Your task to perform on an android device: make emails show in primary in the gmail app Image 0: 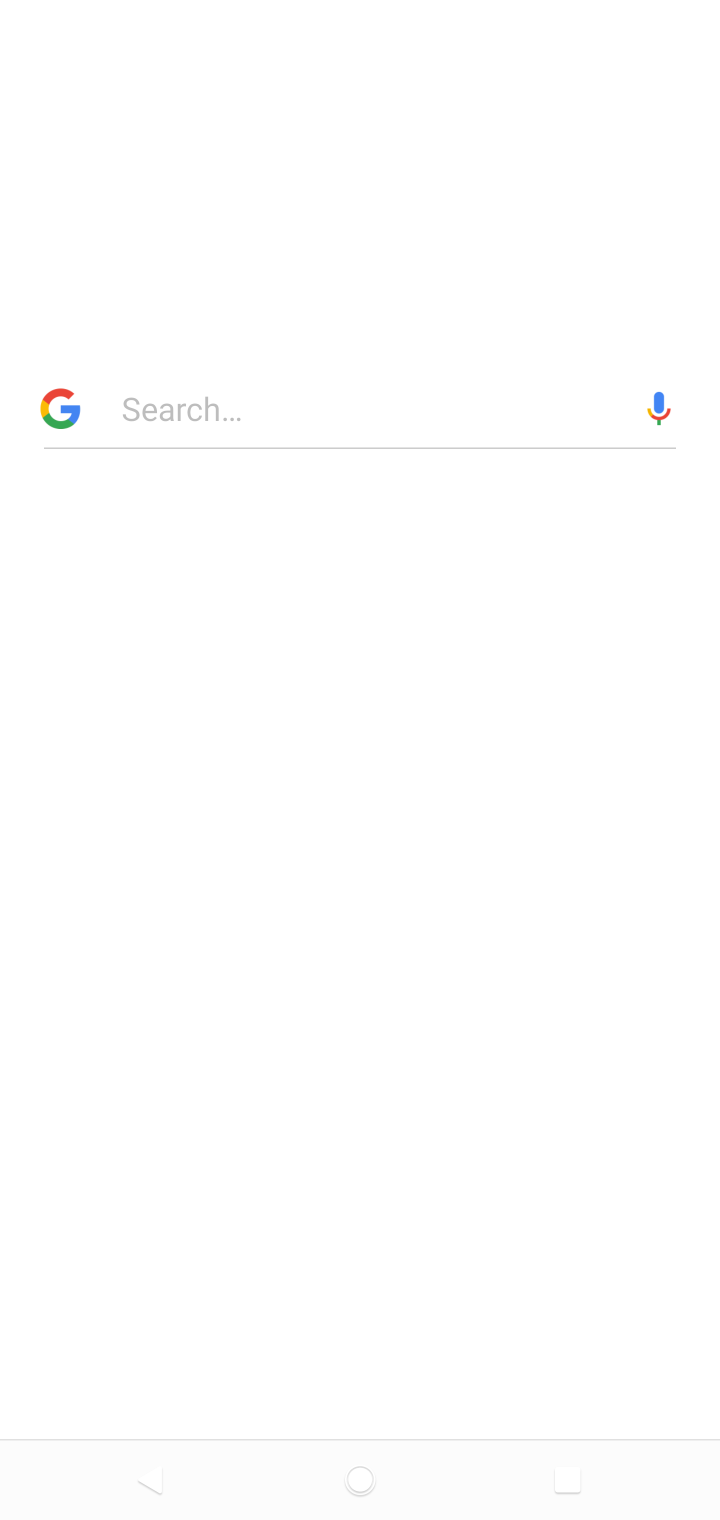
Step 0: press home button
Your task to perform on an android device: make emails show in primary in the gmail app Image 1: 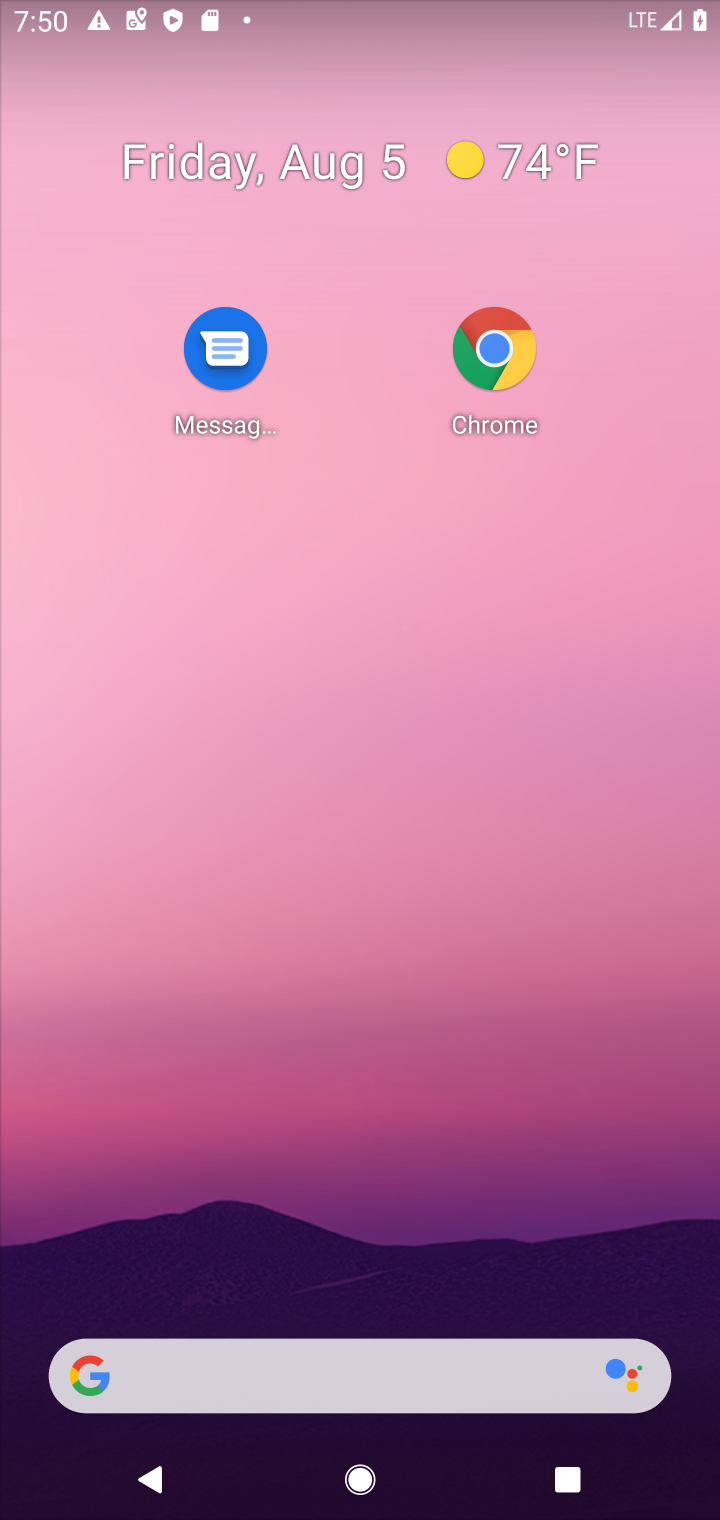
Step 1: drag from (418, 1411) to (362, 569)
Your task to perform on an android device: make emails show in primary in the gmail app Image 2: 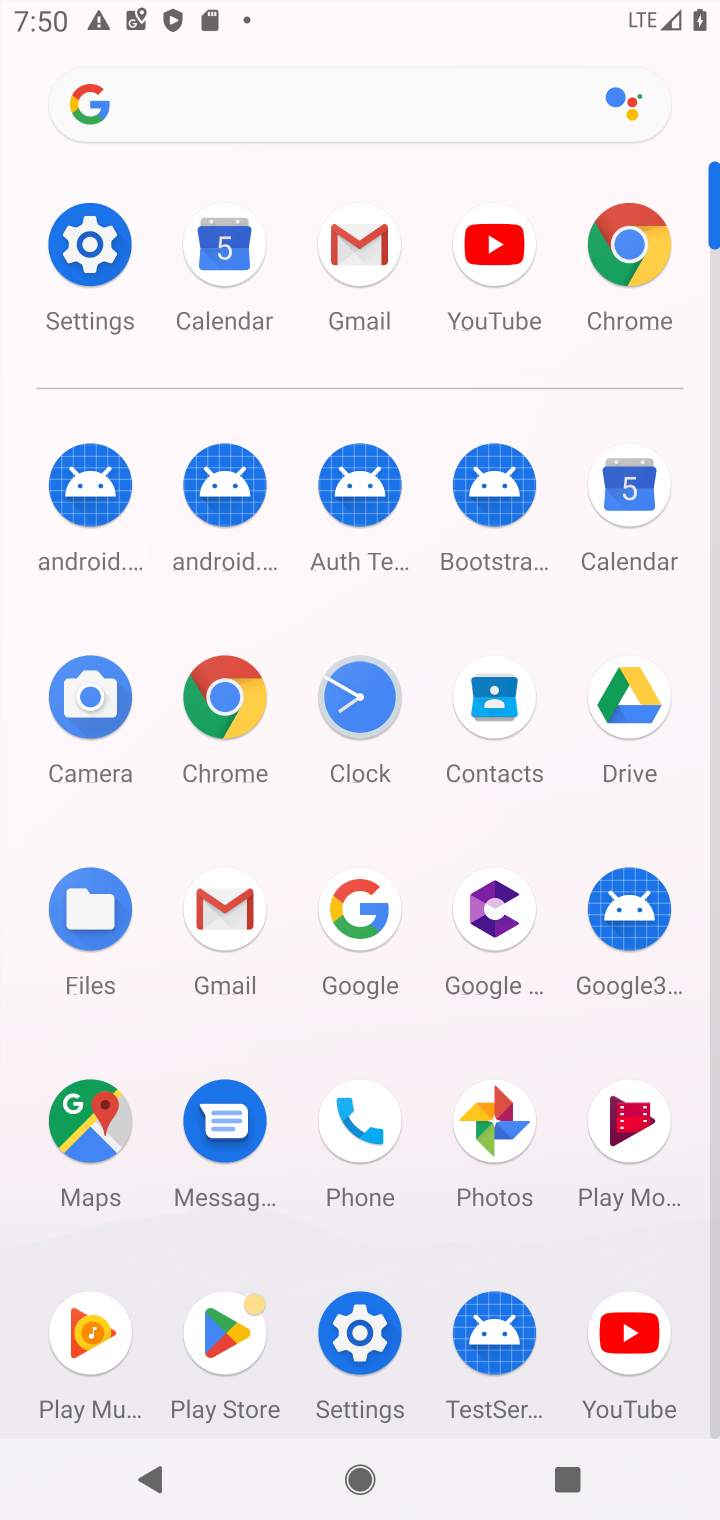
Step 2: click (324, 248)
Your task to perform on an android device: make emails show in primary in the gmail app Image 3: 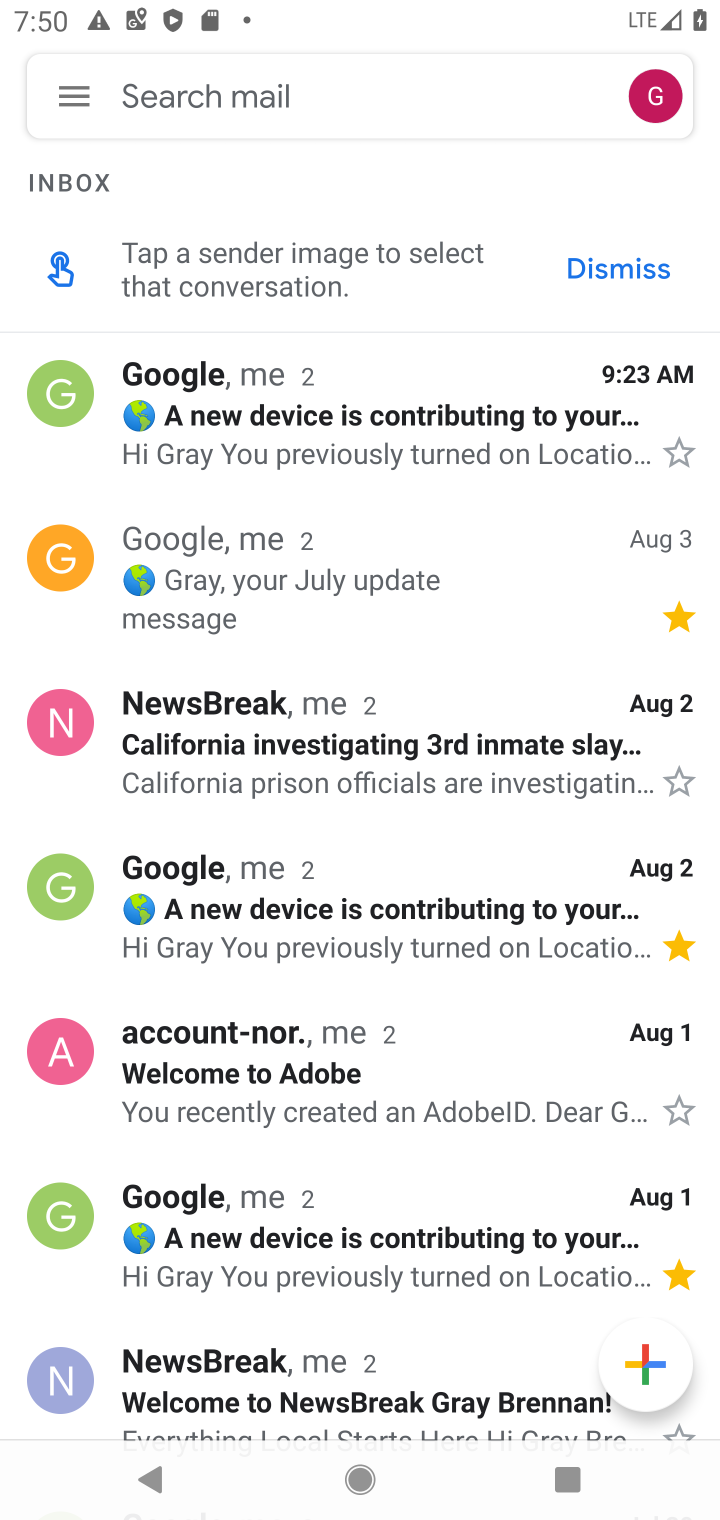
Step 3: click (74, 90)
Your task to perform on an android device: make emails show in primary in the gmail app Image 4: 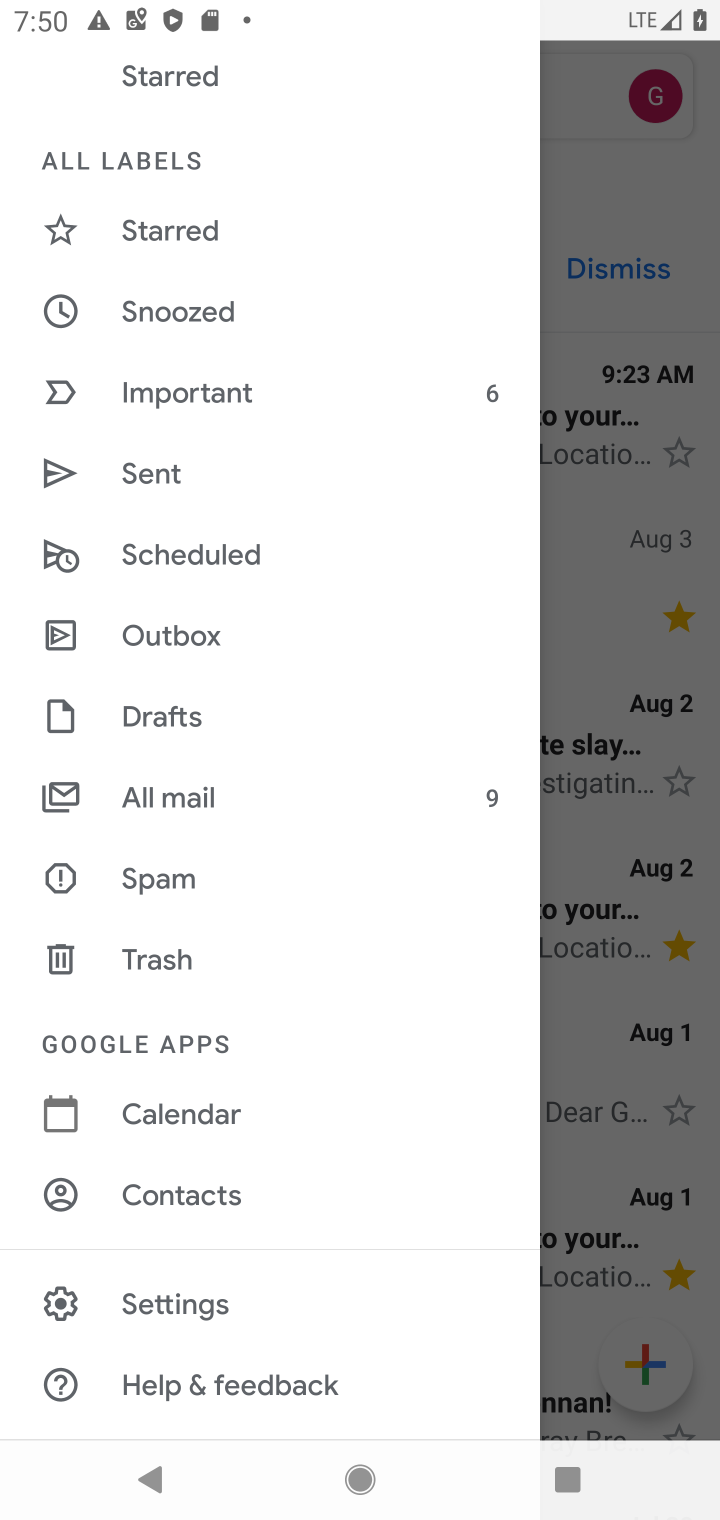
Step 4: click (227, 1294)
Your task to perform on an android device: make emails show in primary in the gmail app Image 5: 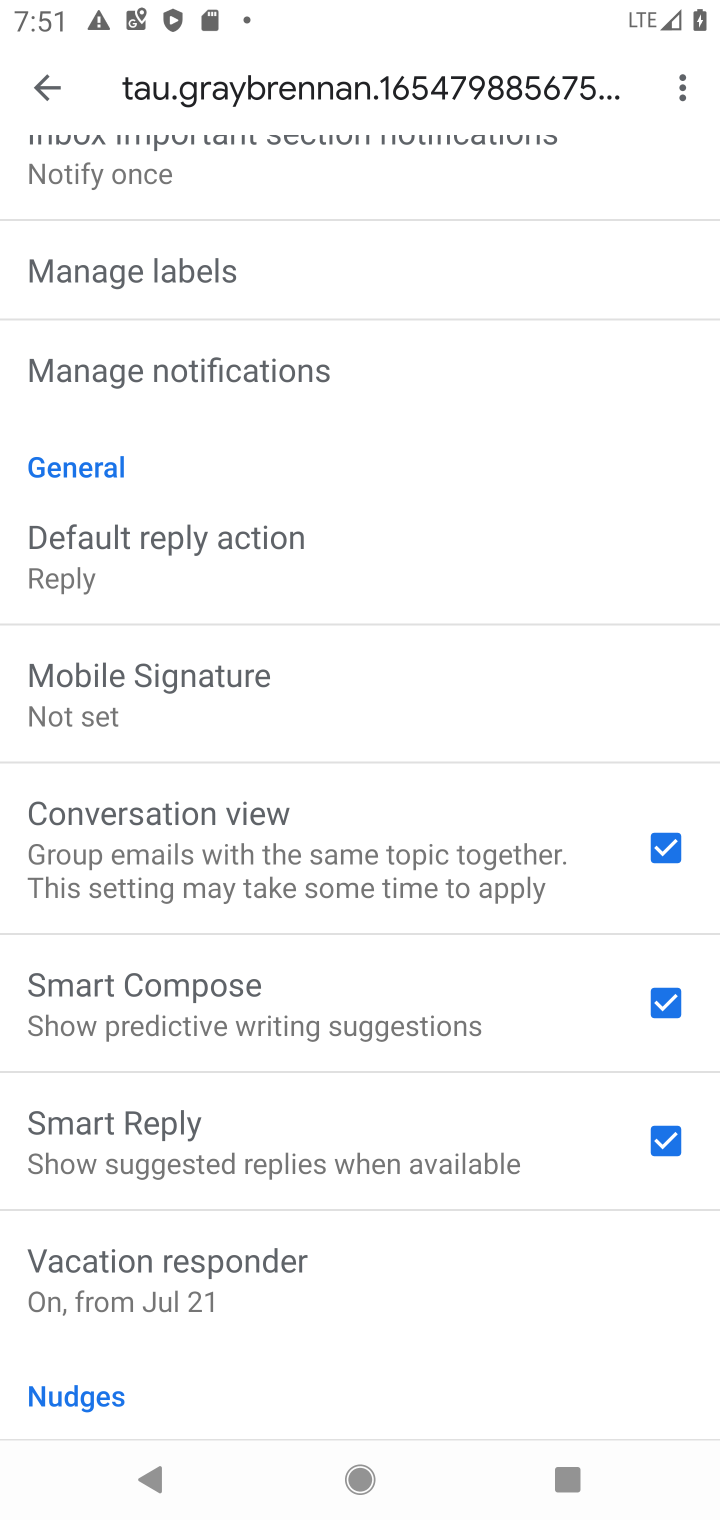
Step 5: drag from (288, 519) to (347, 1142)
Your task to perform on an android device: make emails show in primary in the gmail app Image 6: 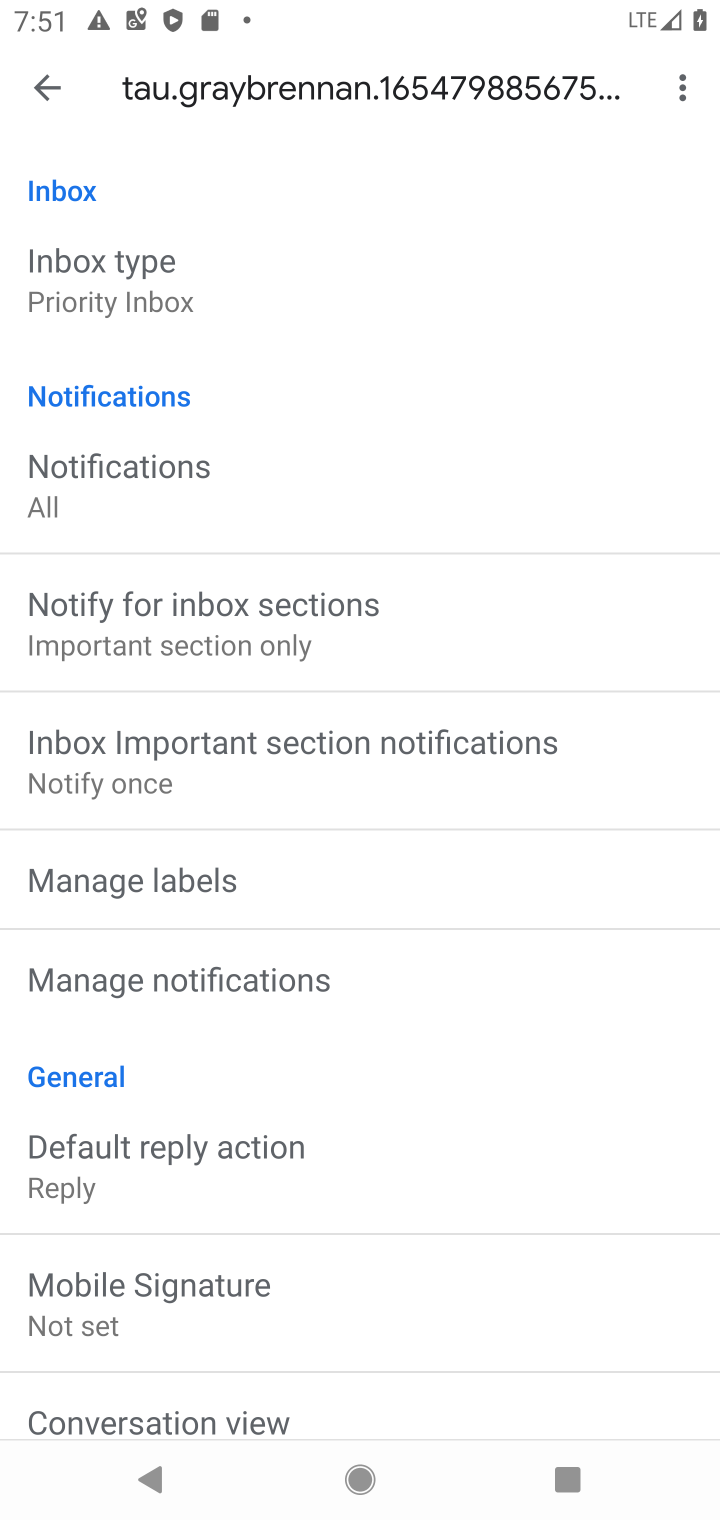
Step 6: click (203, 292)
Your task to perform on an android device: make emails show in primary in the gmail app Image 7: 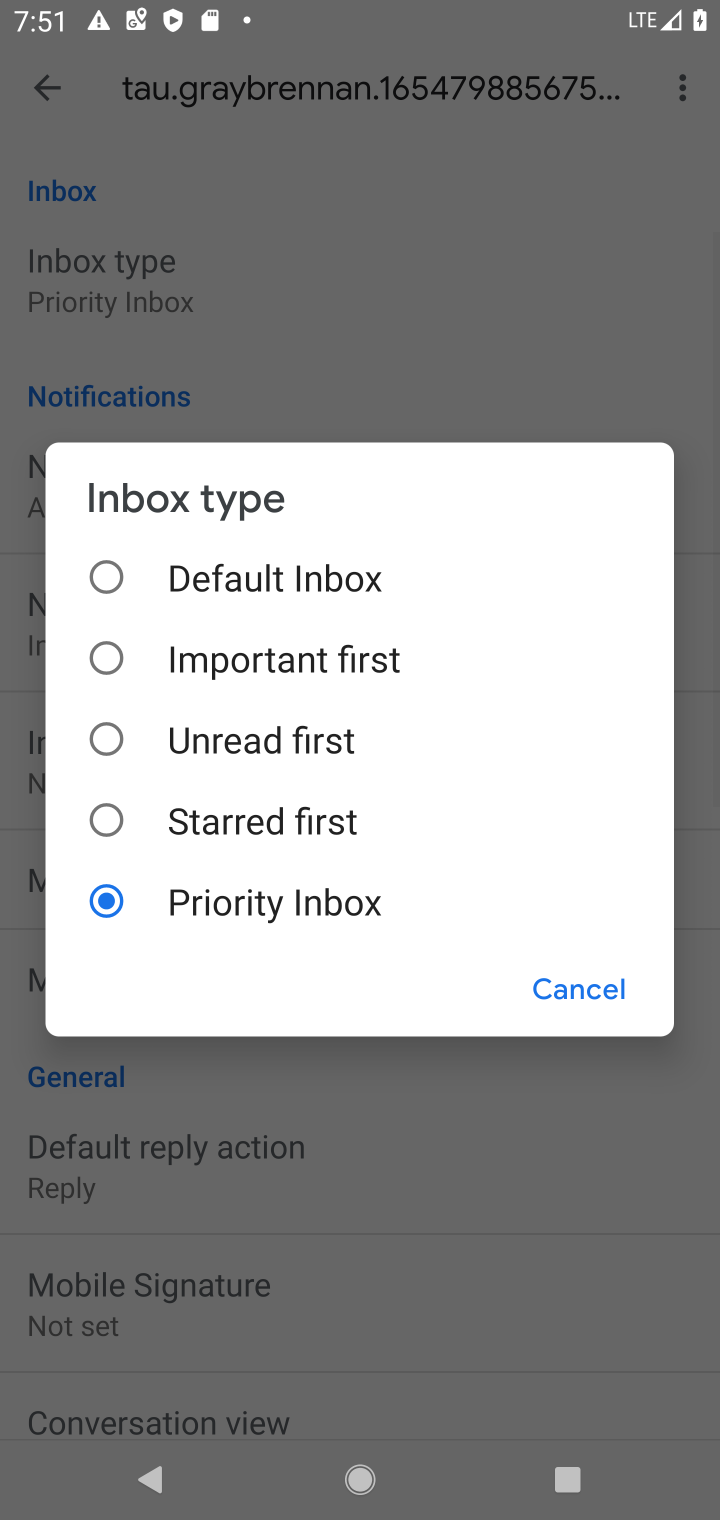
Step 7: click (268, 591)
Your task to perform on an android device: make emails show in primary in the gmail app Image 8: 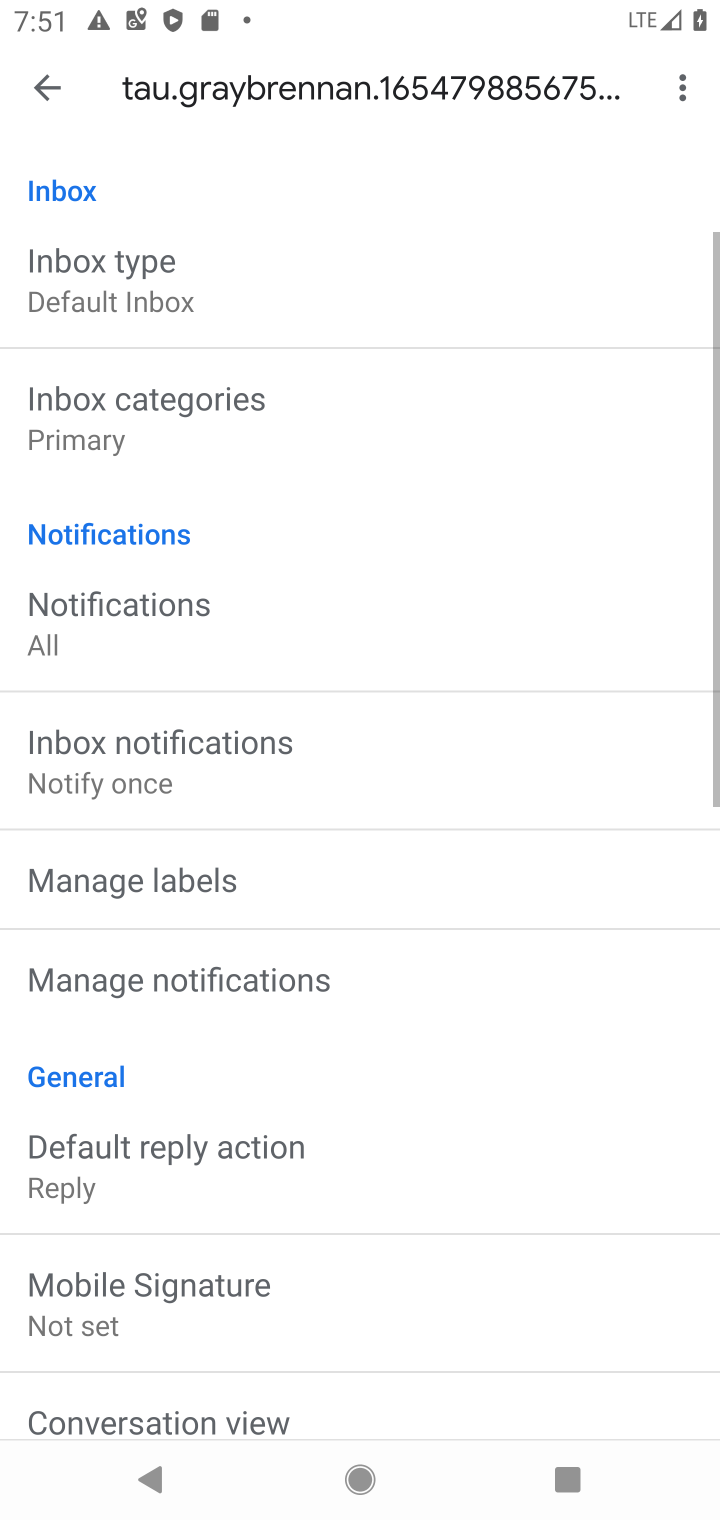
Step 8: click (174, 435)
Your task to perform on an android device: make emails show in primary in the gmail app Image 9: 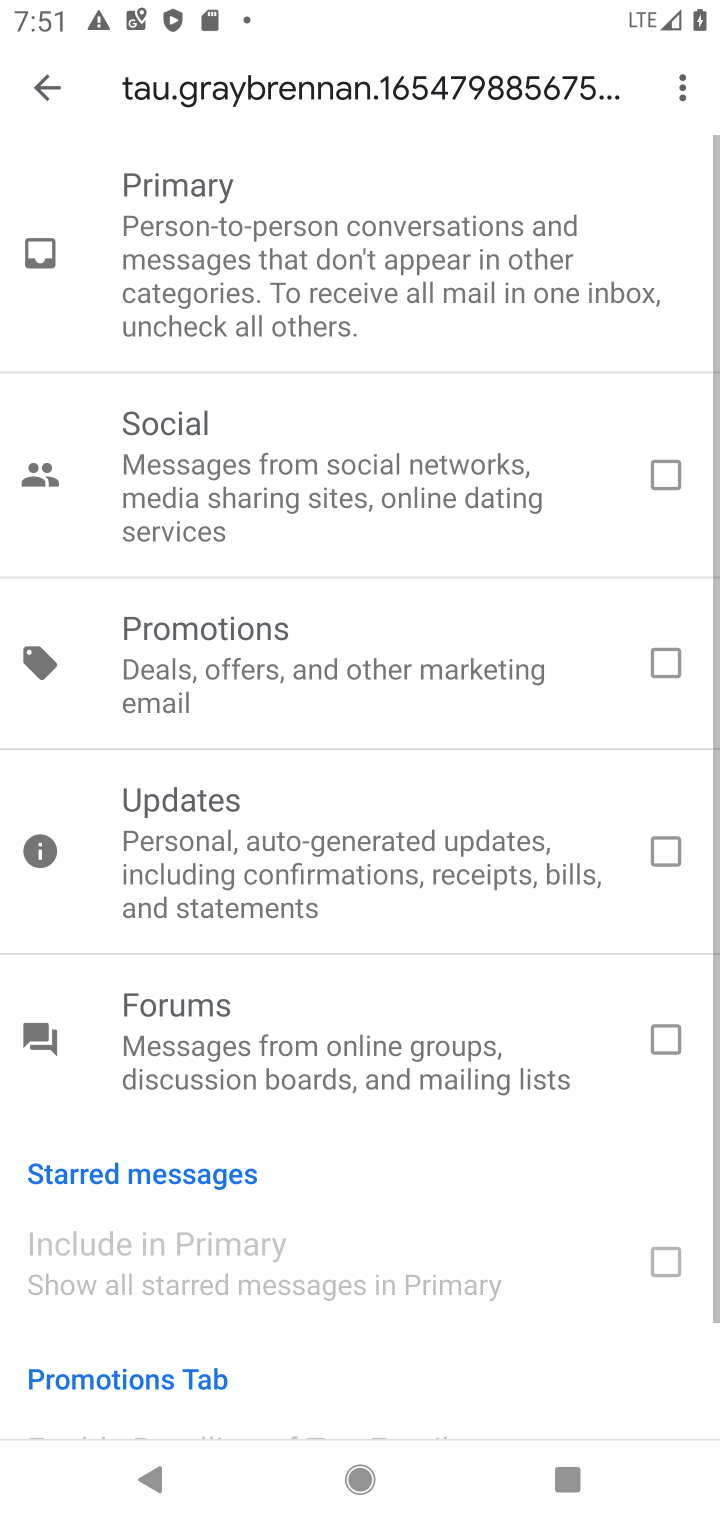
Step 9: click (223, 227)
Your task to perform on an android device: make emails show in primary in the gmail app Image 10: 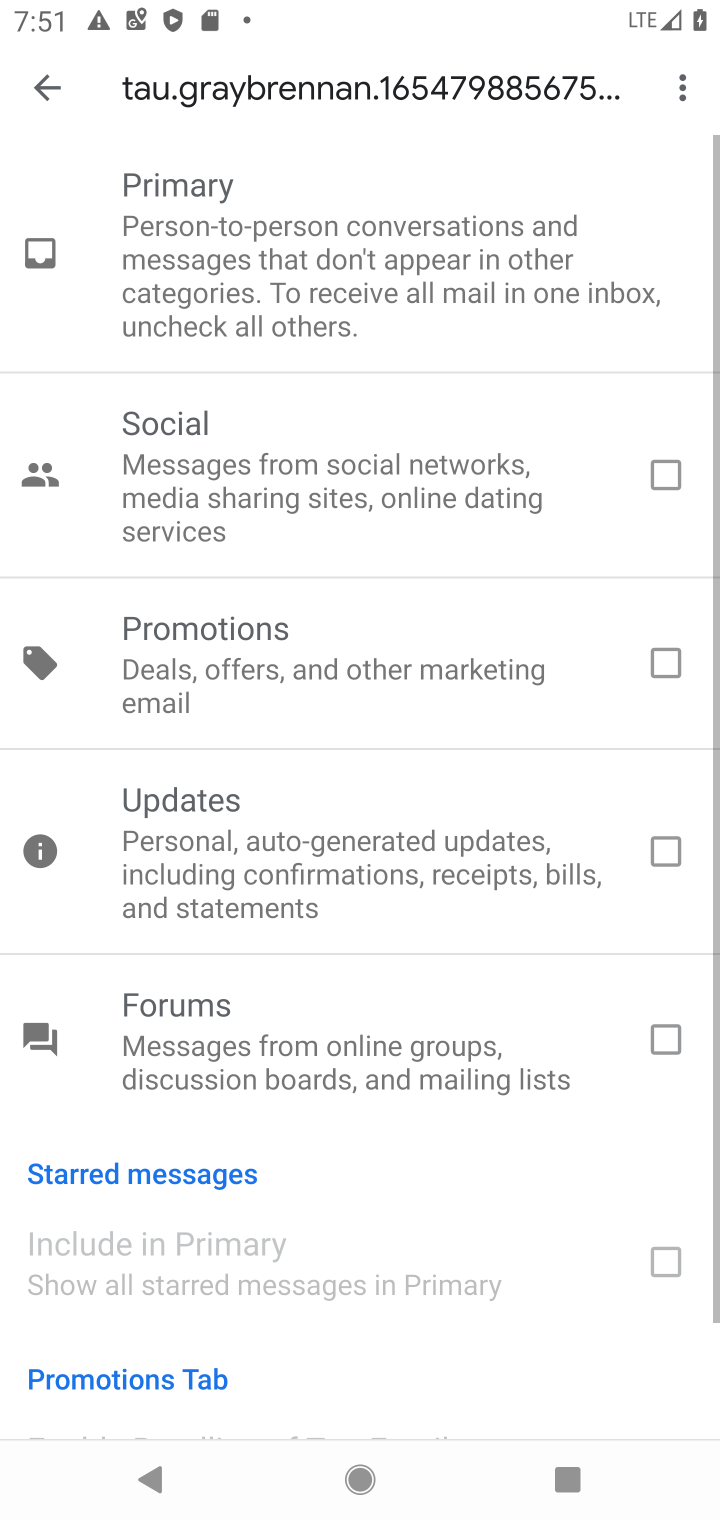
Step 10: click (35, 90)
Your task to perform on an android device: make emails show in primary in the gmail app Image 11: 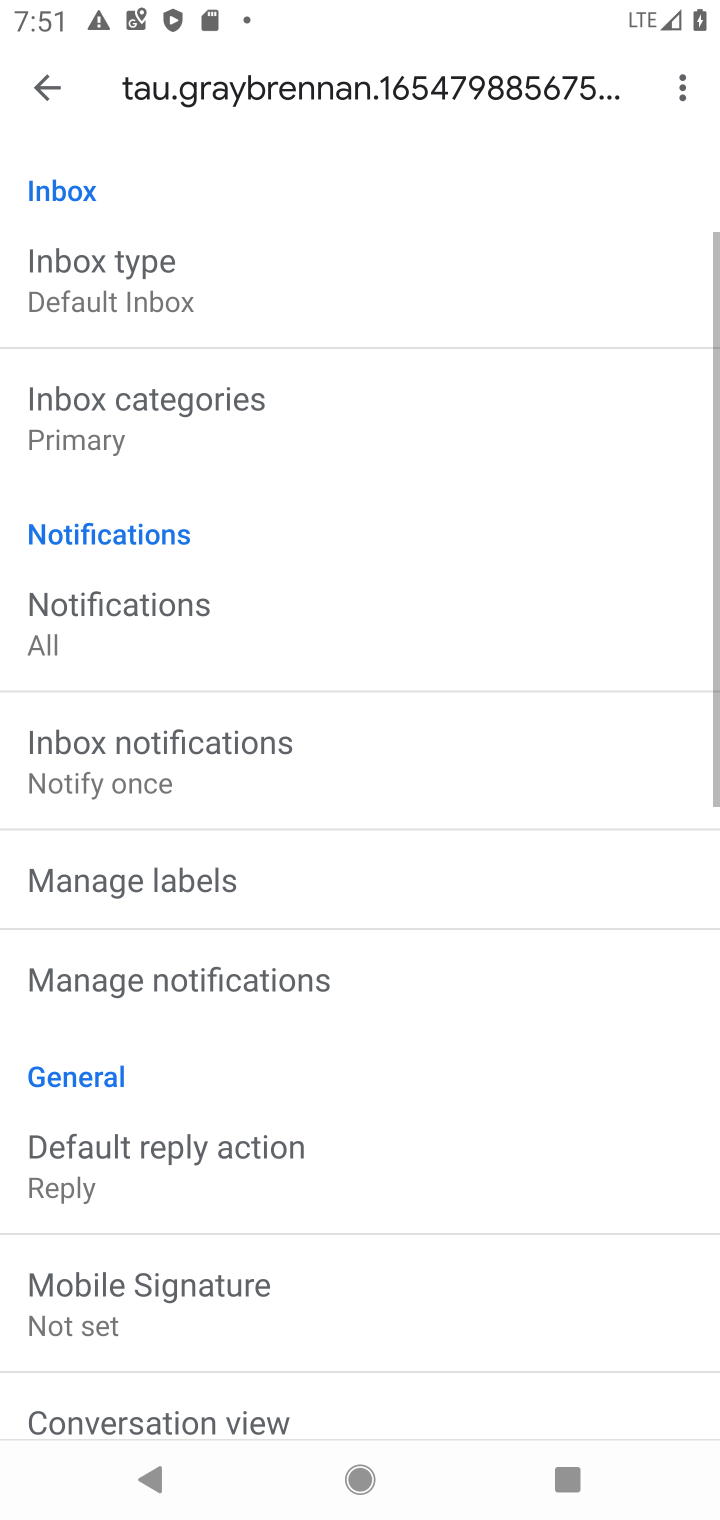
Step 11: task complete